Your task to perform on an android device: move a message to another label in the gmail app Image 0: 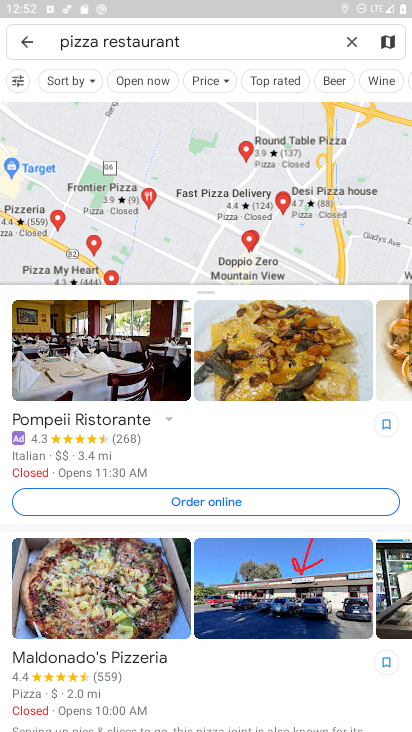
Step 0: press home button
Your task to perform on an android device: move a message to another label in the gmail app Image 1: 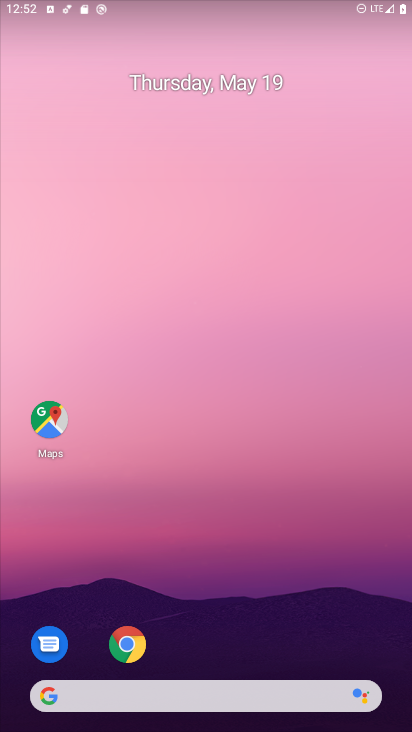
Step 1: drag from (325, 608) to (252, 78)
Your task to perform on an android device: move a message to another label in the gmail app Image 2: 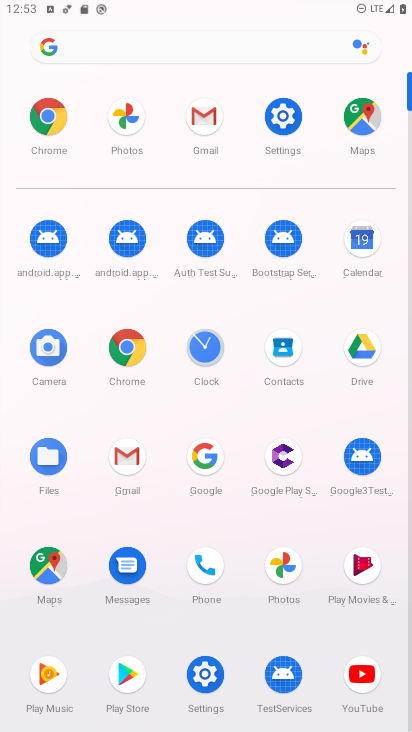
Step 2: click (119, 471)
Your task to perform on an android device: move a message to another label in the gmail app Image 3: 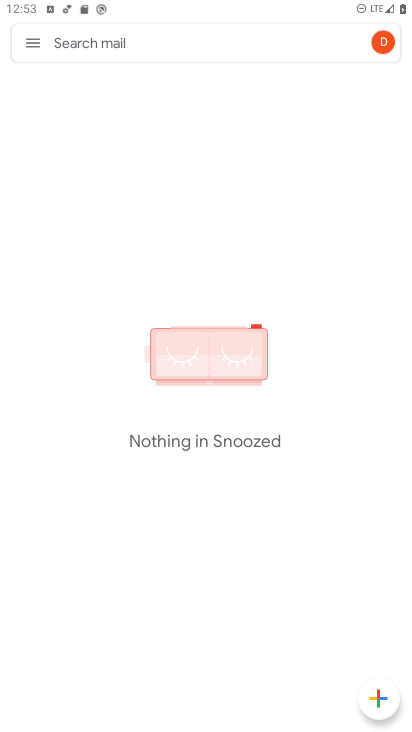
Step 3: task complete